Your task to perform on an android device: open a bookmark in the chrome app Image 0: 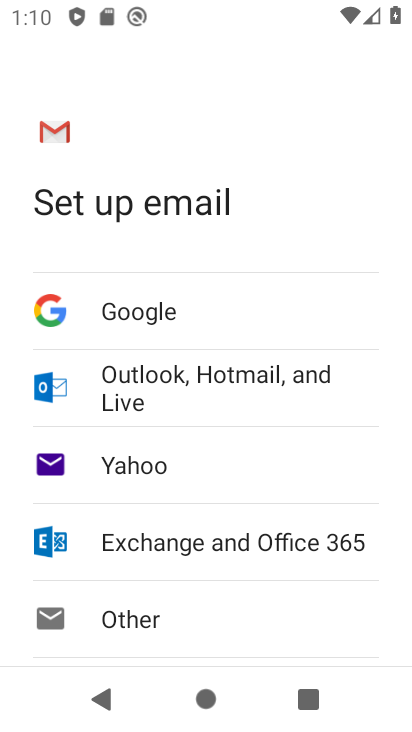
Step 0: press home button
Your task to perform on an android device: open a bookmark in the chrome app Image 1: 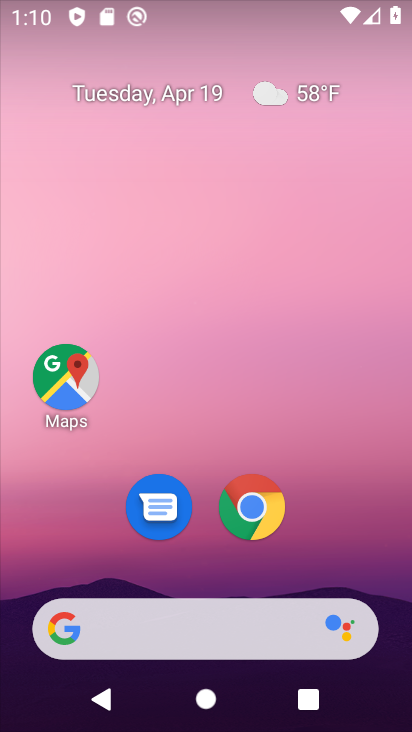
Step 1: click (246, 504)
Your task to perform on an android device: open a bookmark in the chrome app Image 2: 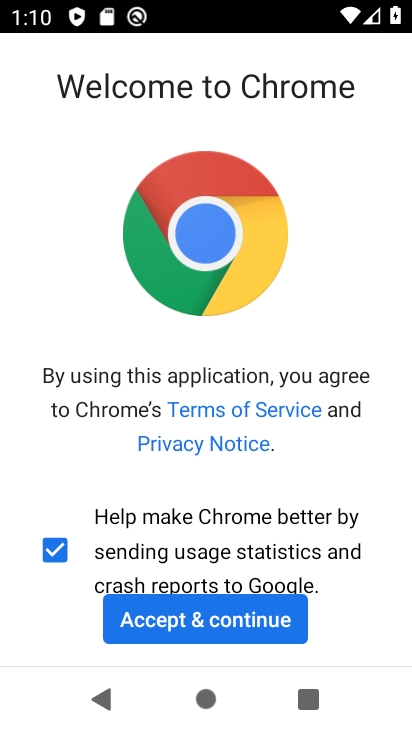
Step 2: click (204, 617)
Your task to perform on an android device: open a bookmark in the chrome app Image 3: 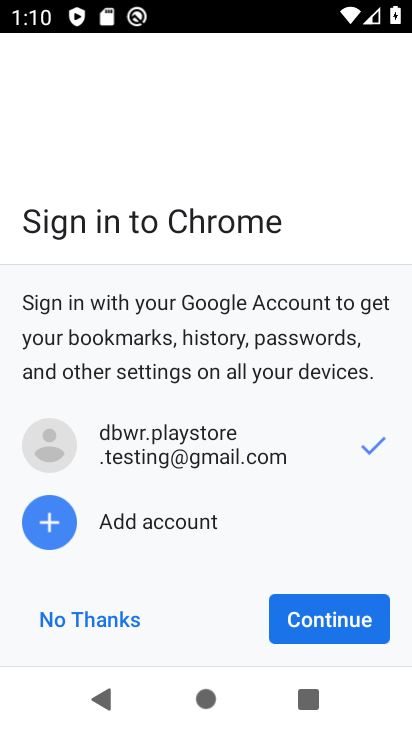
Step 3: click (311, 617)
Your task to perform on an android device: open a bookmark in the chrome app Image 4: 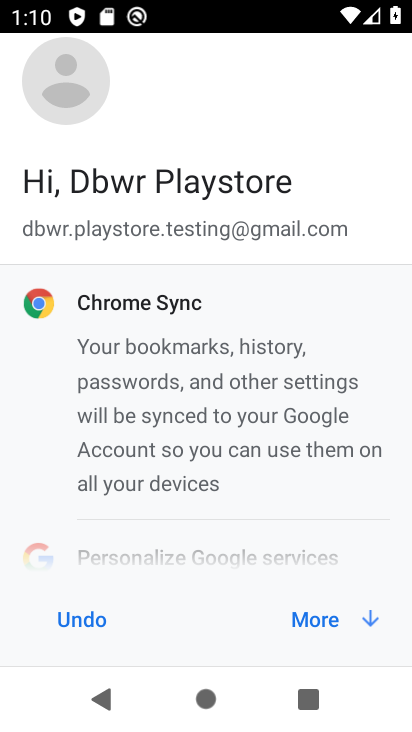
Step 4: click (311, 617)
Your task to perform on an android device: open a bookmark in the chrome app Image 5: 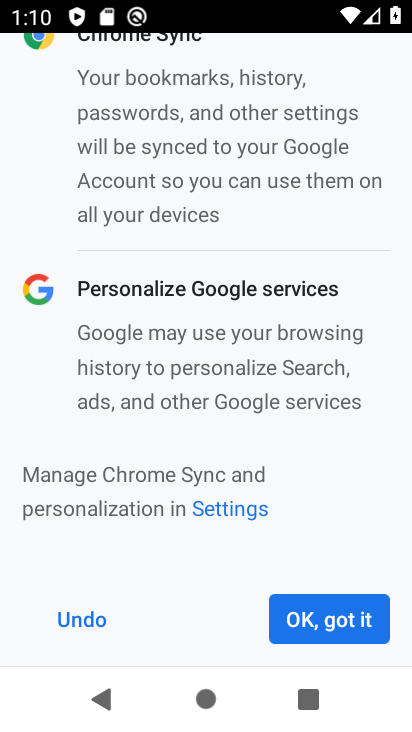
Step 5: click (311, 617)
Your task to perform on an android device: open a bookmark in the chrome app Image 6: 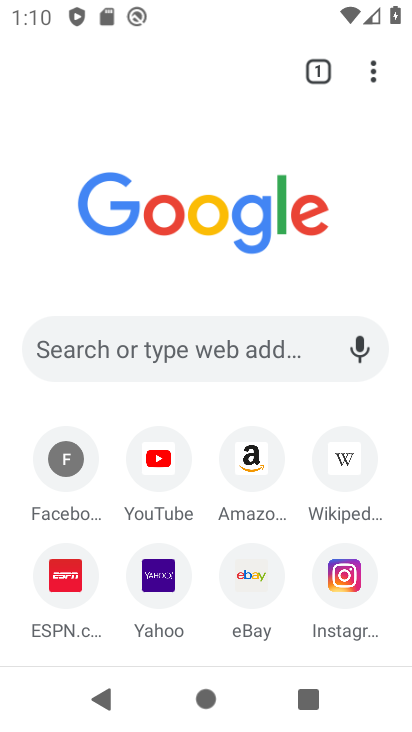
Step 6: click (372, 66)
Your task to perform on an android device: open a bookmark in the chrome app Image 7: 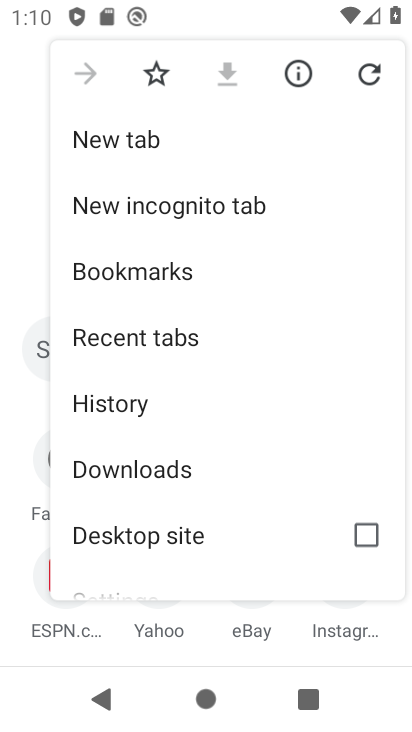
Step 7: drag from (298, 437) to (233, 197)
Your task to perform on an android device: open a bookmark in the chrome app Image 8: 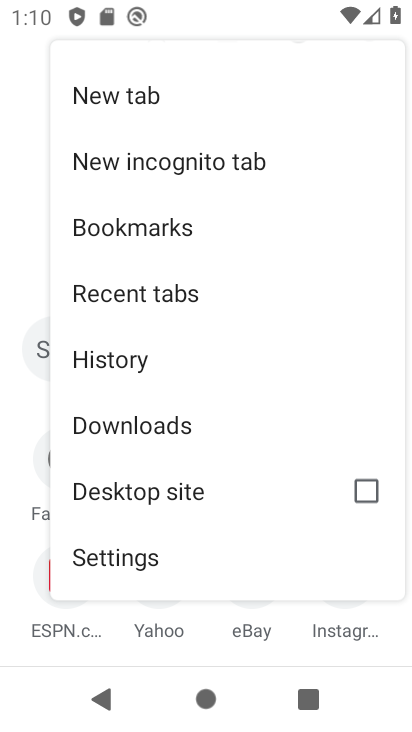
Step 8: click (160, 227)
Your task to perform on an android device: open a bookmark in the chrome app Image 9: 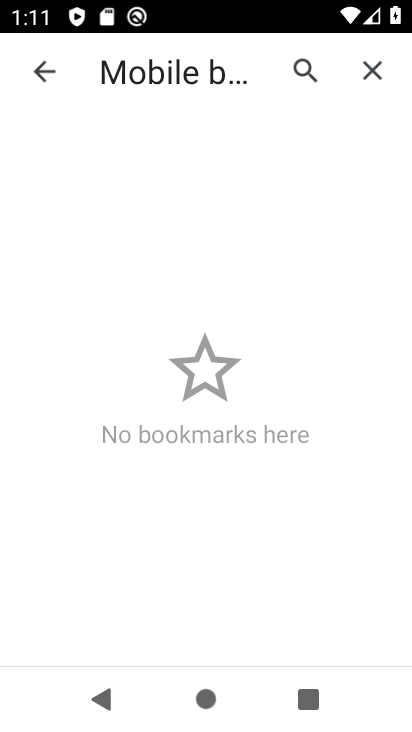
Step 9: task complete